Your task to perform on an android device: What's the weather today? Image 0: 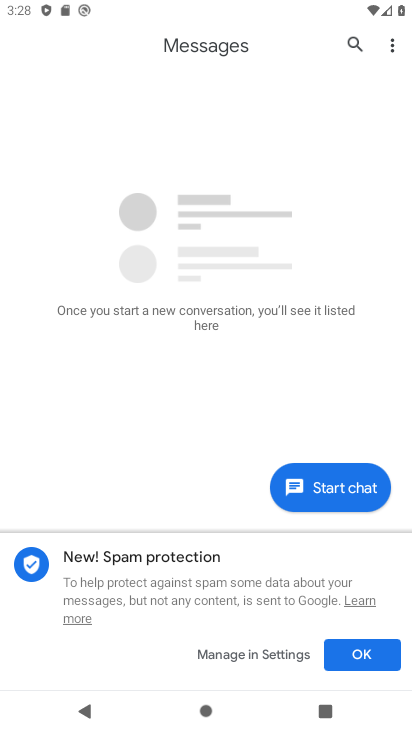
Step 0: press home button
Your task to perform on an android device: What's the weather today? Image 1: 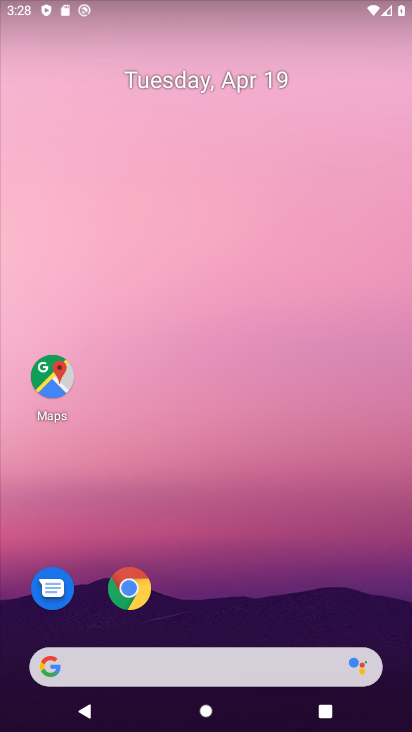
Step 1: drag from (220, 595) to (156, 80)
Your task to perform on an android device: What's the weather today? Image 2: 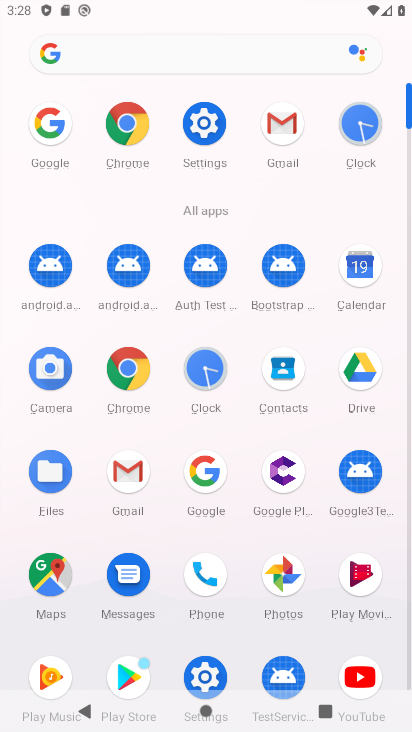
Step 2: click (199, 481)
Your task to perform on an android device: What's the weather today? Image 3: 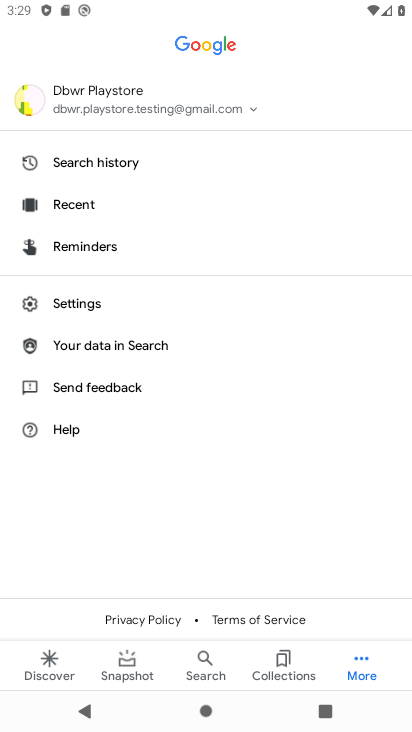
Step 3: click (85, 713)
Your task to perform on an android device: What's the weather today? Image 4: 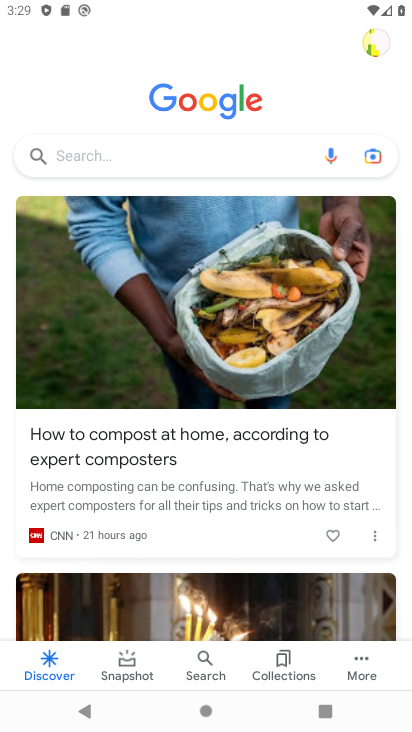
Step 4: click (193, 145)
Your task to perform on an android device: What's the weather today? Image 5: 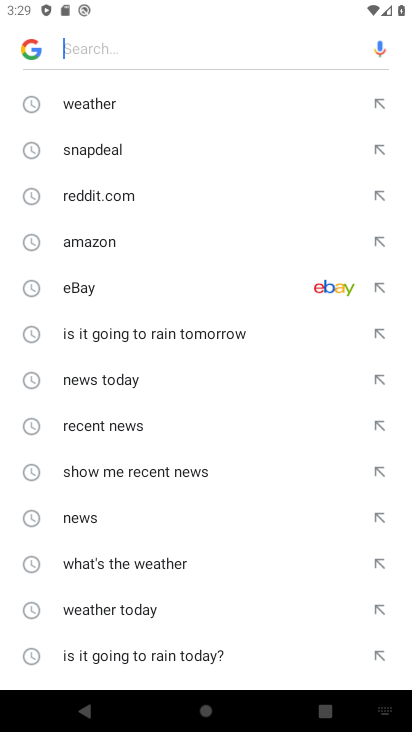
Step 5: type "what's the weather today?"
Your task to perform on an android device: What's the weather today? Image 6: 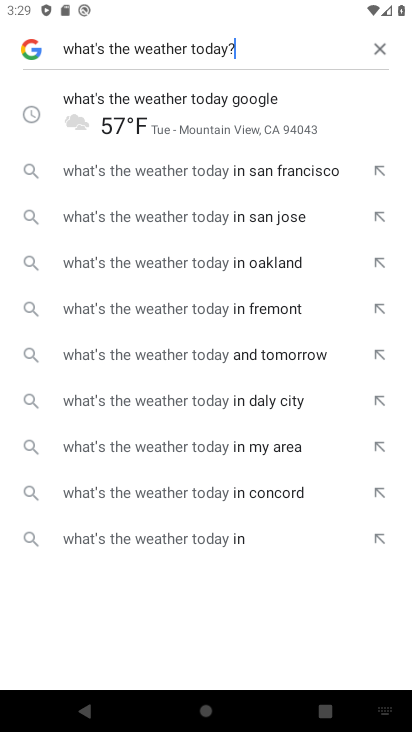
Step 6: click (132, 116)
Your task to perform on an android device: What's the weather today? Image 7: 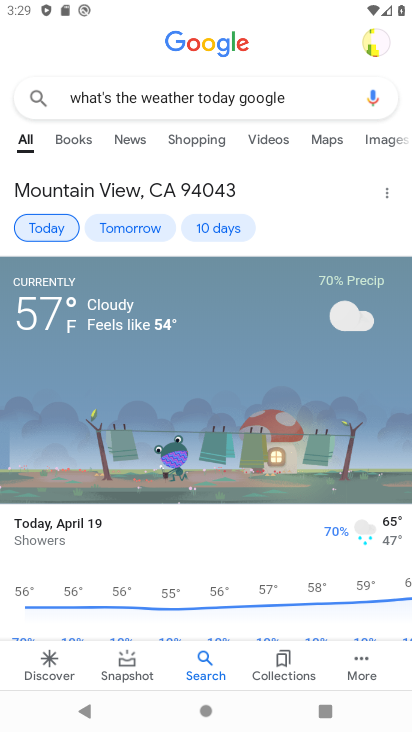
Step 7: task complete